Your task to perform on an android device: toggle location history Image 0: 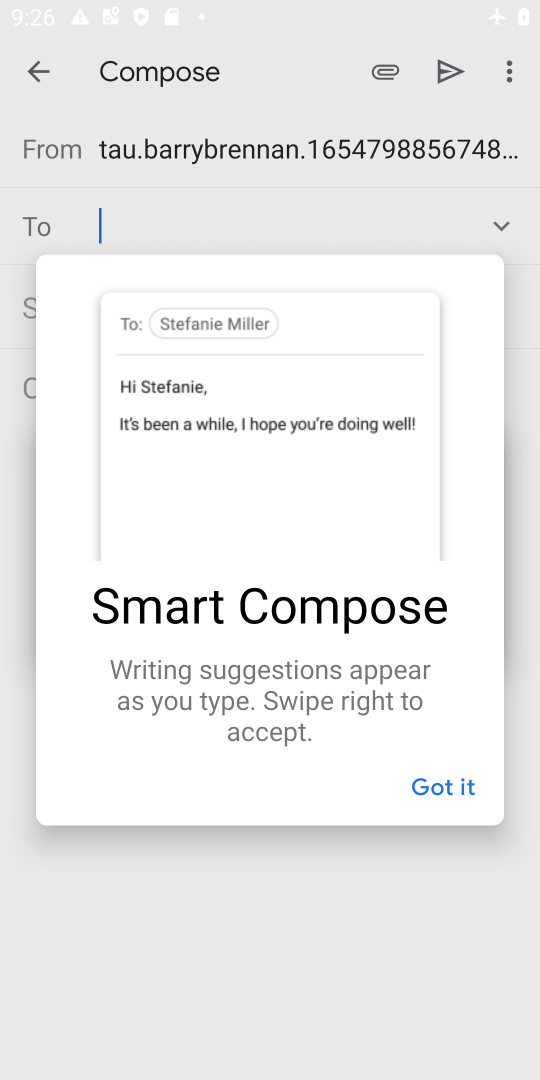
Step 0: press home button
Your task to perform on an android device: toggle location history Image 1: 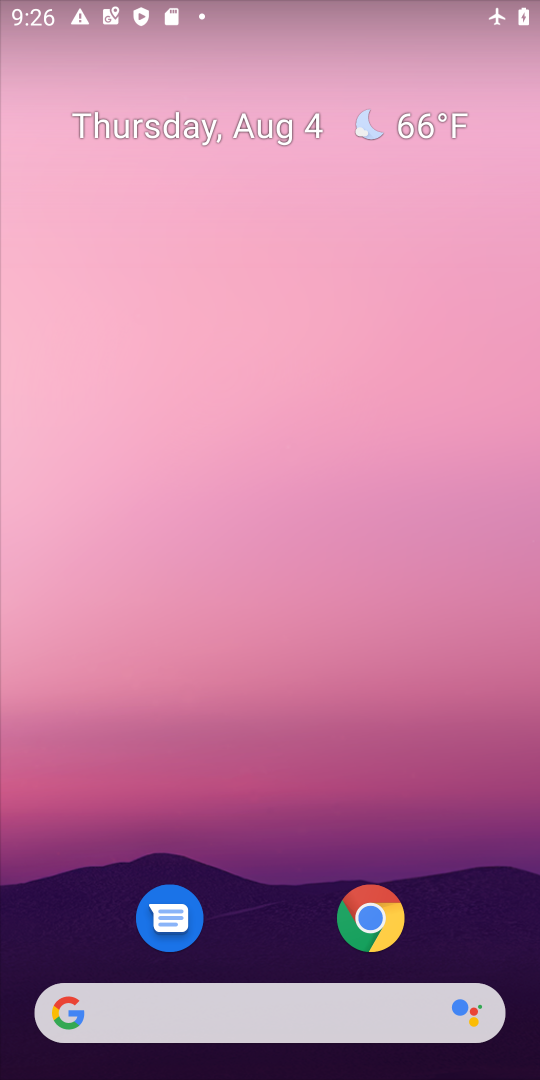
Step 1: drag from (278, 956) to (315, 6)
Your task to perform on an android device: toggle location history Image 2: 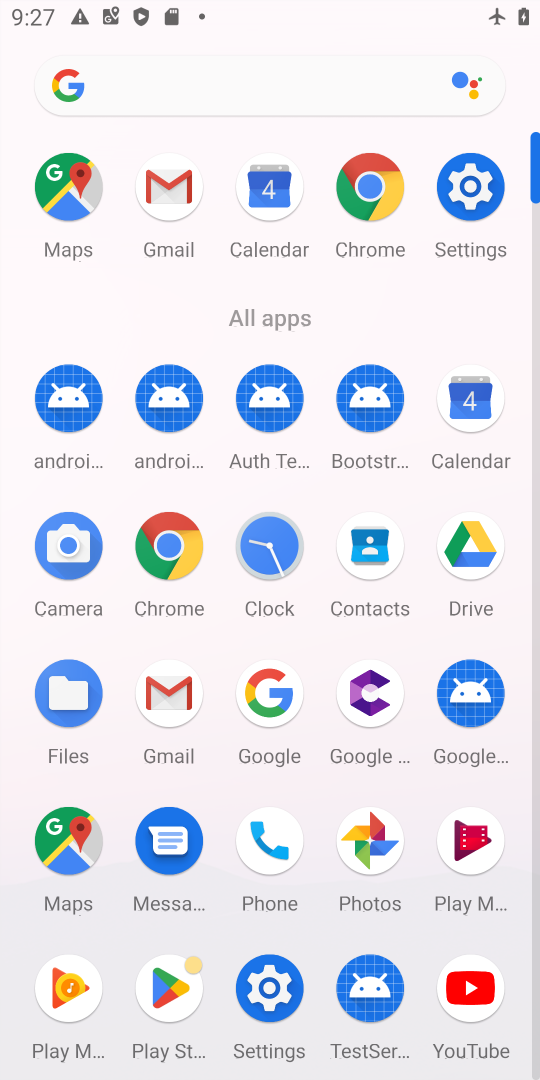
Step 2: click (473, 177)
Your task to perform on an android device: toggle location history Image 3: 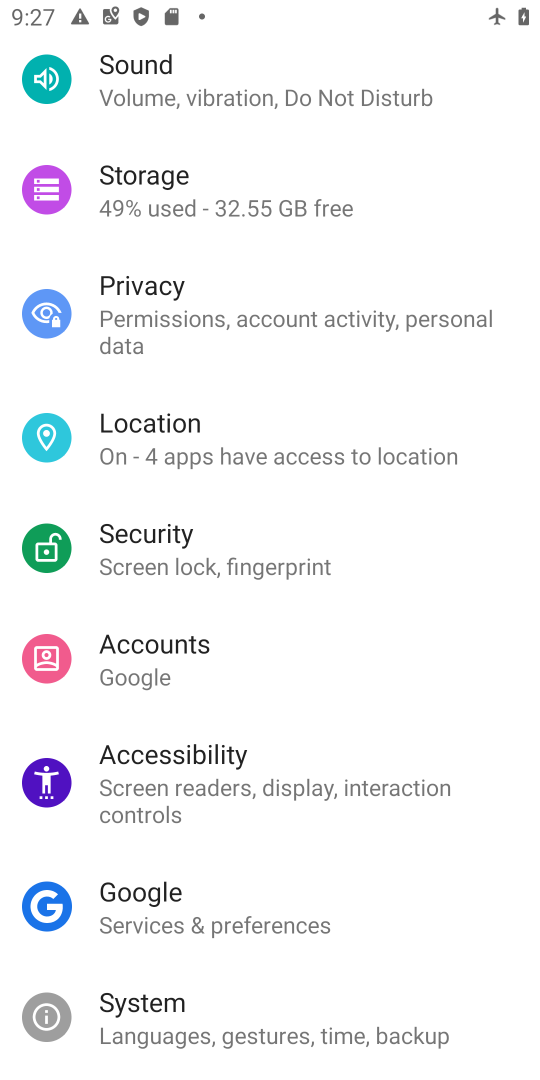
Step 3: click (209, 415)
Your task to perform on an android device: toggle location history Image 4: 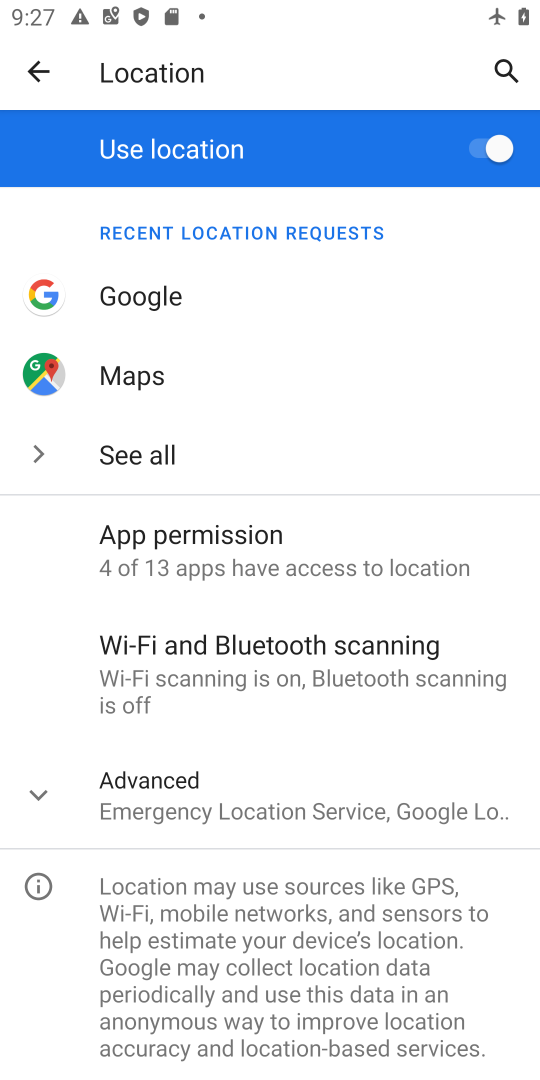
Step 4: click (37, 786)
Your task to perform on an android device: toggle location history Image 5: 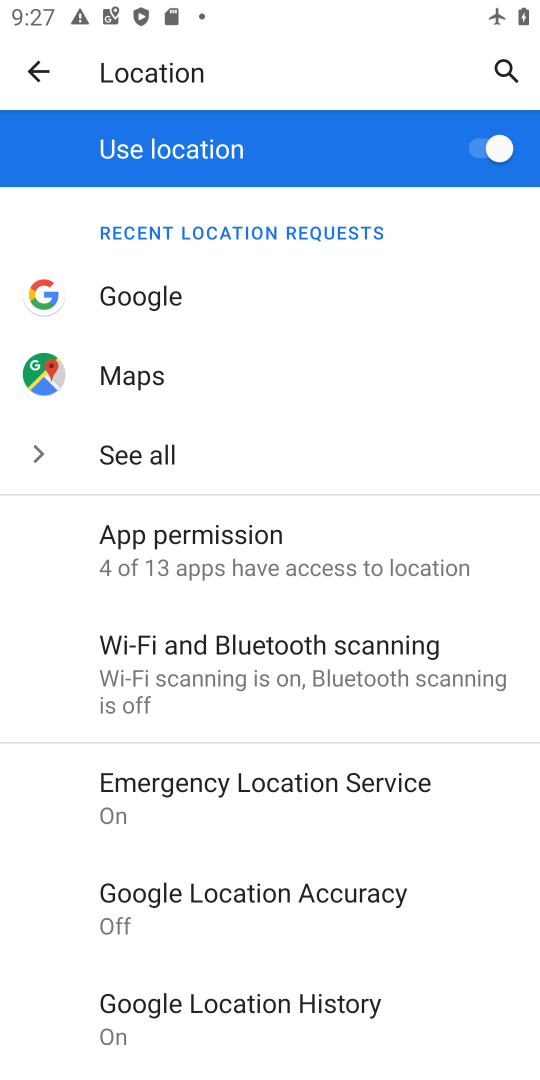
Step 5: click (325, 1009)
Your task to perform on an android device: toggle location history Image 6: 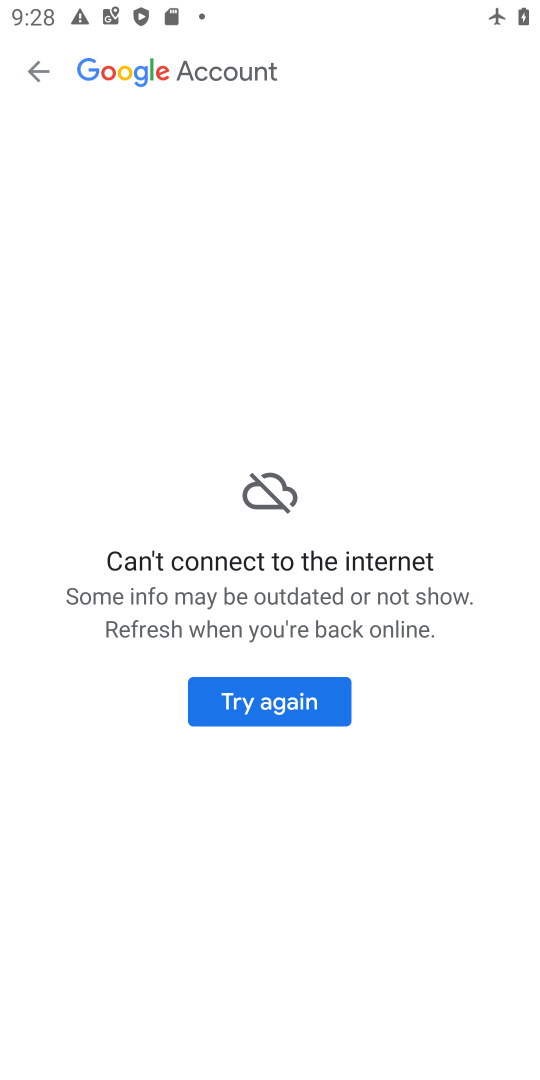
Step 6: task complete